Your task to perform on an android device: Search for alienware area 51 on amazon, select the first entry, and add it to the cart. Image 0: 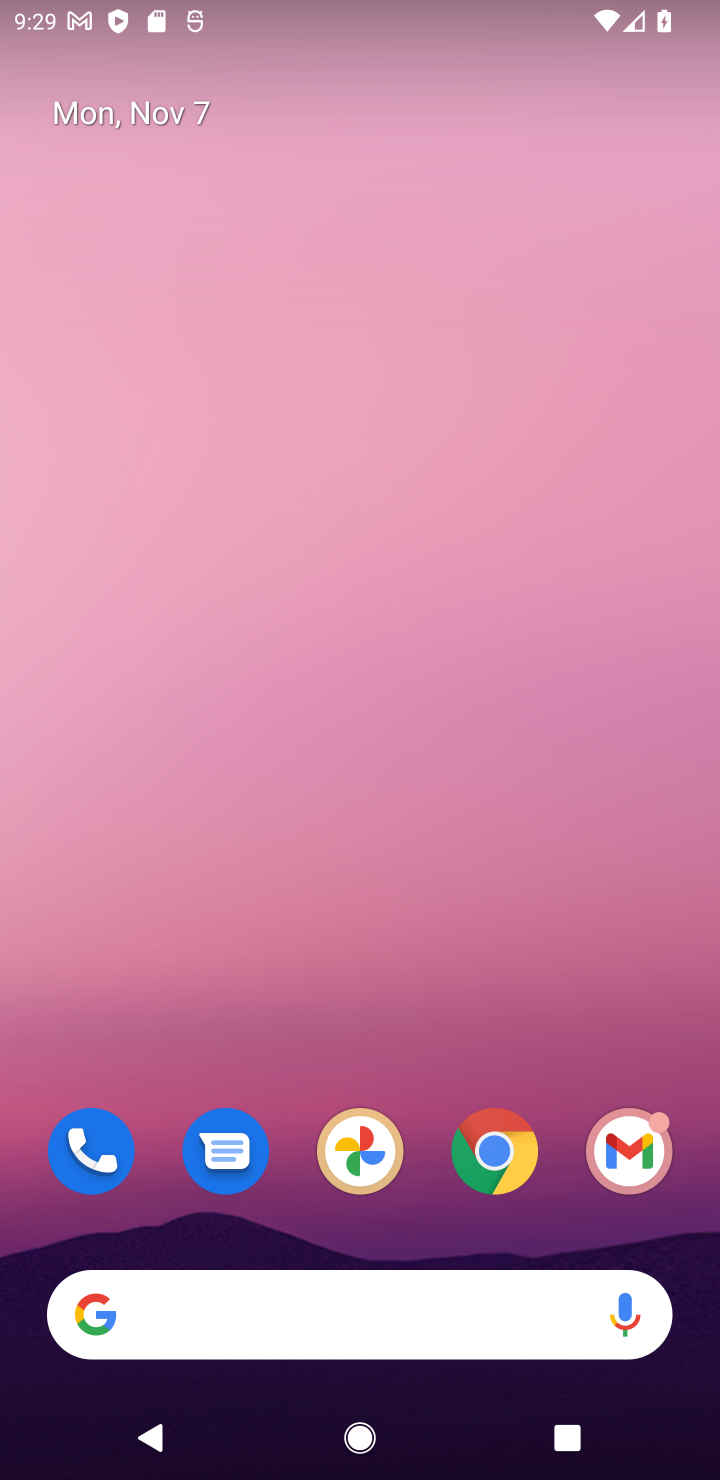
Step 0: click (506, 1168)
Your task to perform on an android device: Search for alienware area 51 on amazon, select the first entry, and add it to the cart. Image 1: 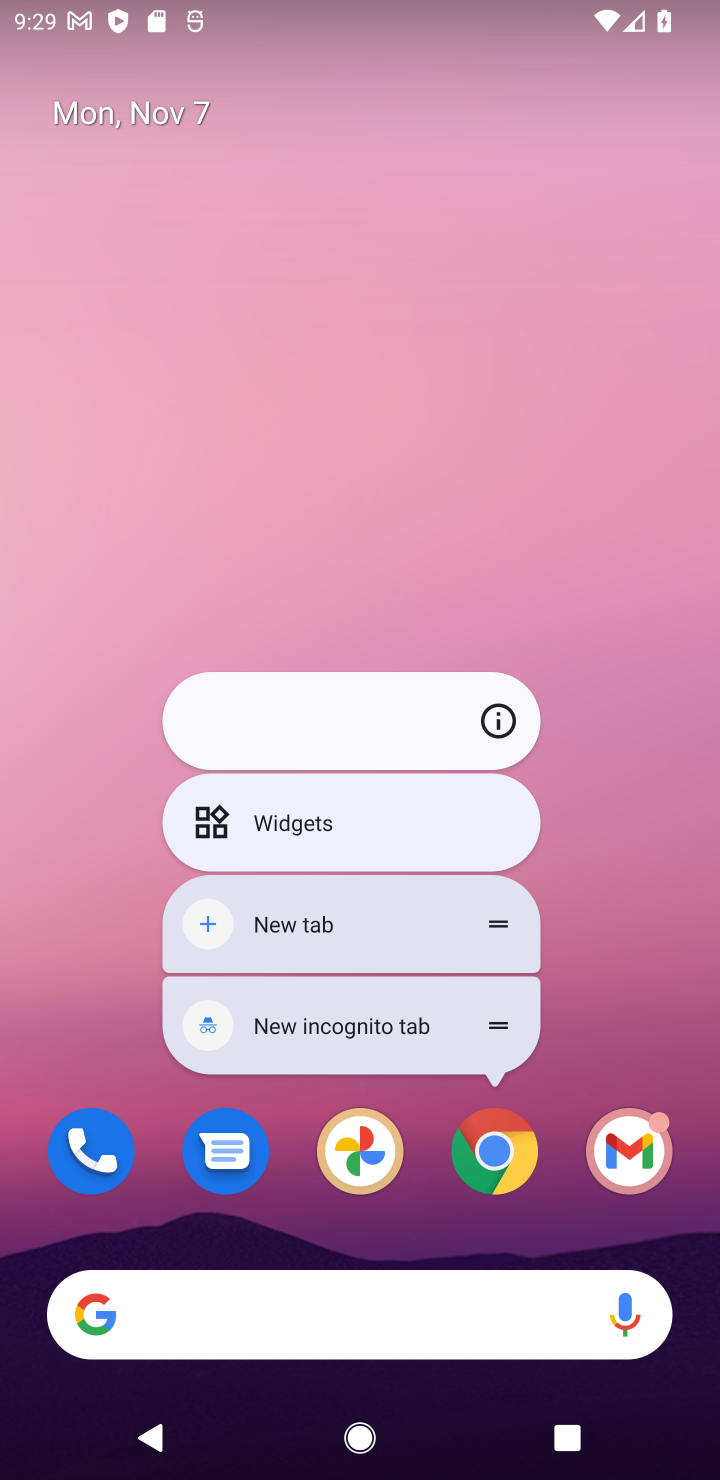
Step 1: click (502, 1140)
Your task to perform on an android device: Search for alienware area 51 on amazon, select the first entry, and add it to the cart. Image 2: 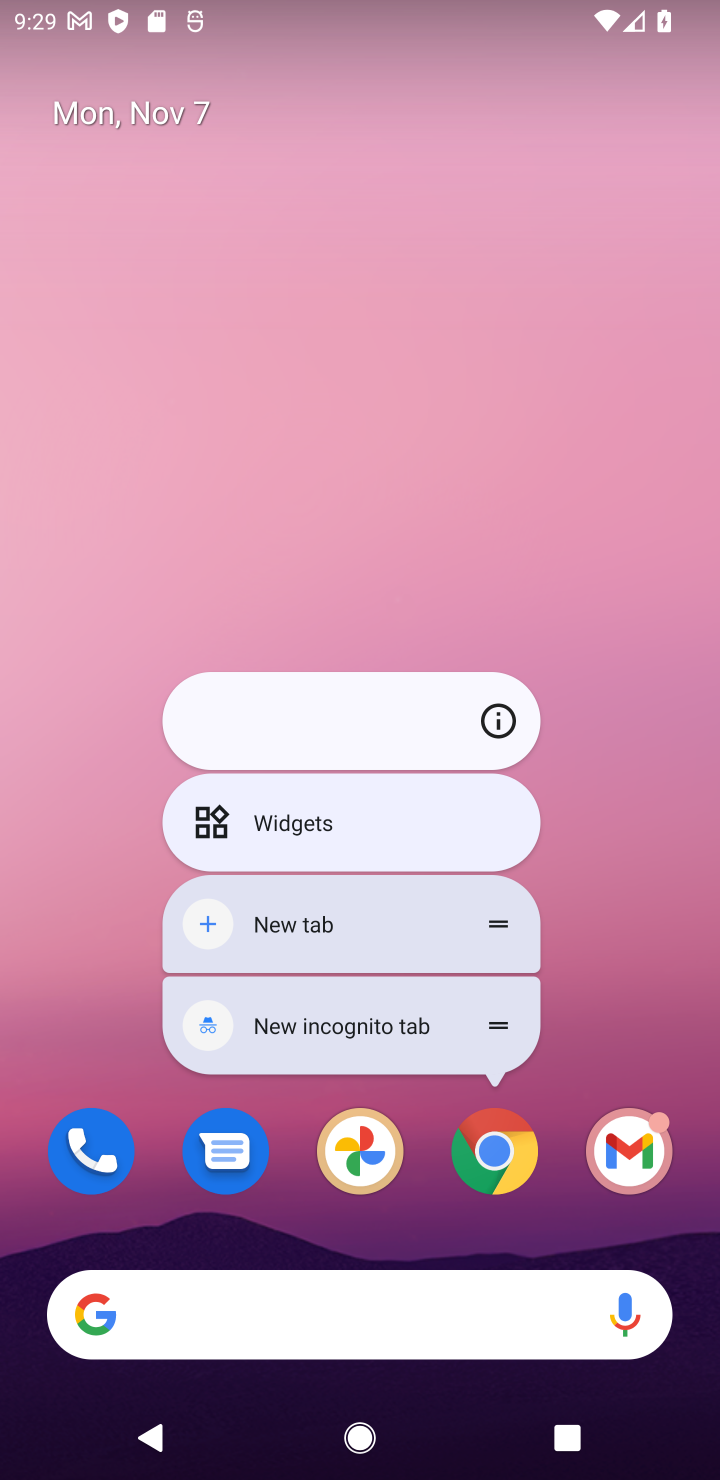
Step 2: click (489, 1155)
Your task to perform on an android device: Search for alienware area 51 on amazon, select the first entry, and add it to the cart. Image 3: 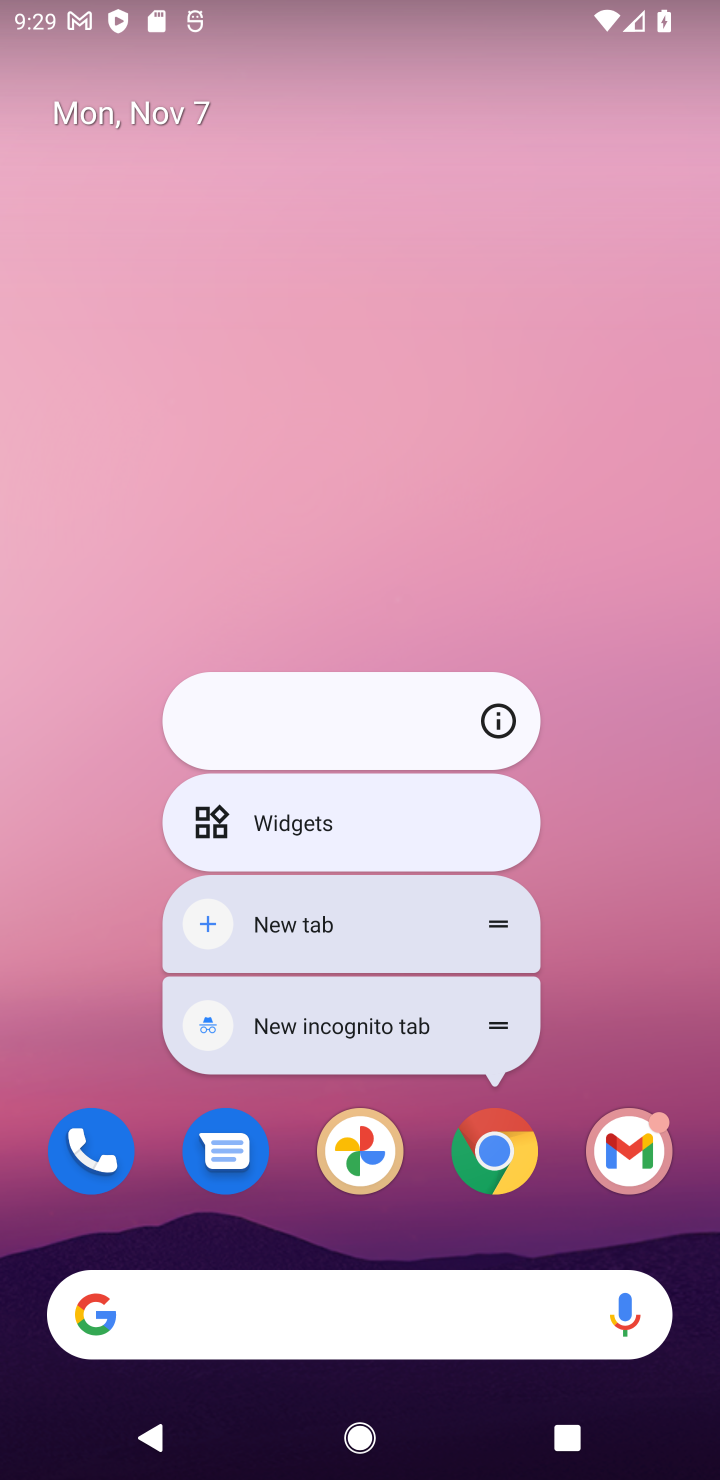
Step 3: click (489, 1155)
Your task to perform on an android device: Search for alienware area 51 on amazon, select the first entry, and add it to the cart. Image 4: 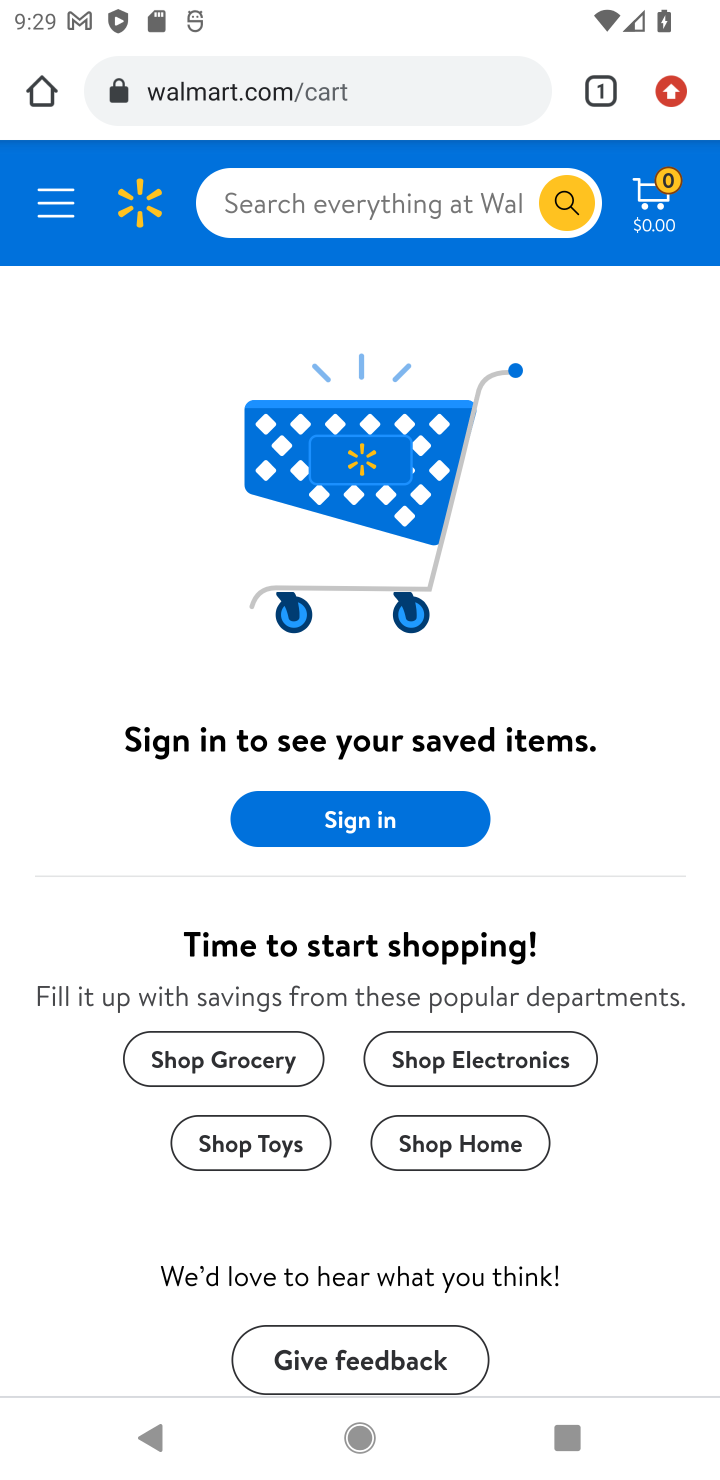
Step 4: click (407, 78)
Your task to perform on an android device: Search for alienware area 51 on amazon, select the first entry, and add it to the cart. Image 5: 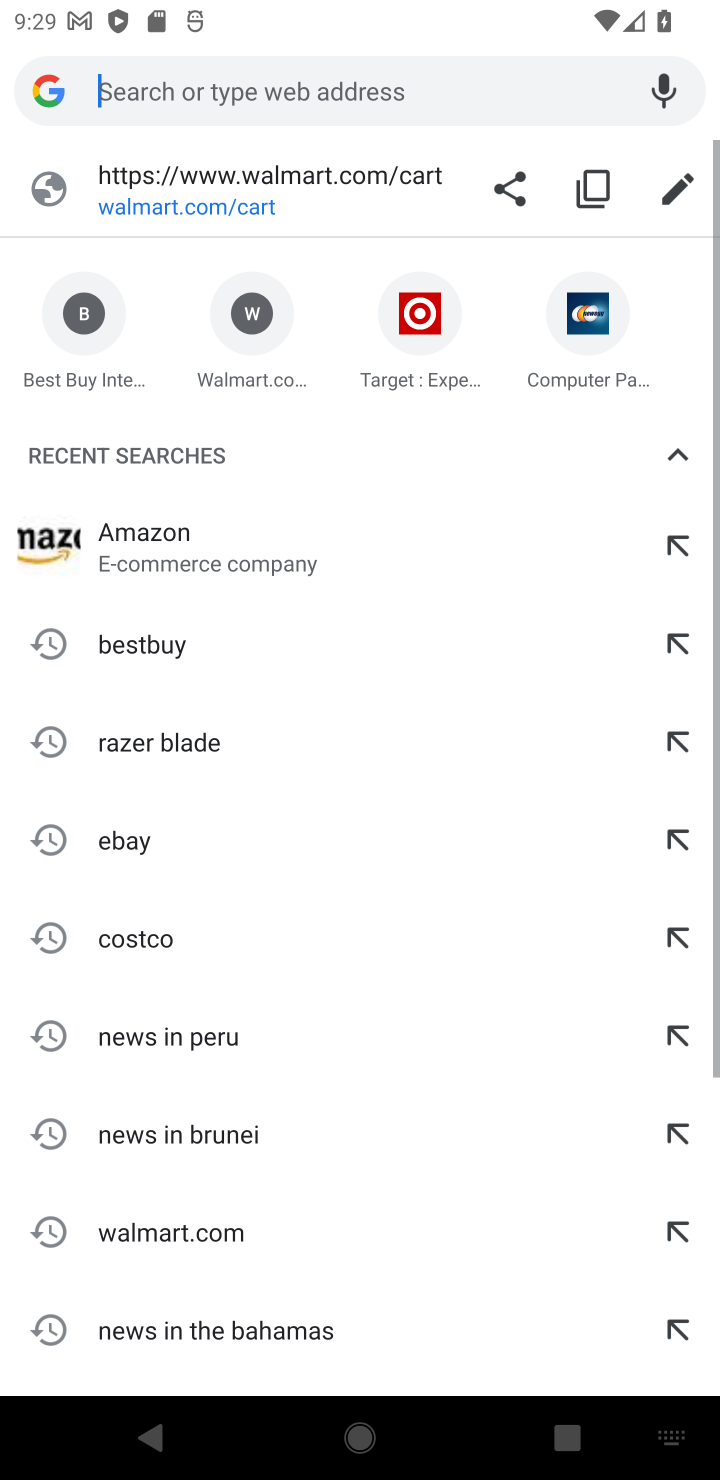
Step 5: click (94, 535)
Your task to perform on an android device: Search for alienware area 51 on amazon, select the first entry, and add it to the cart. Image 6: 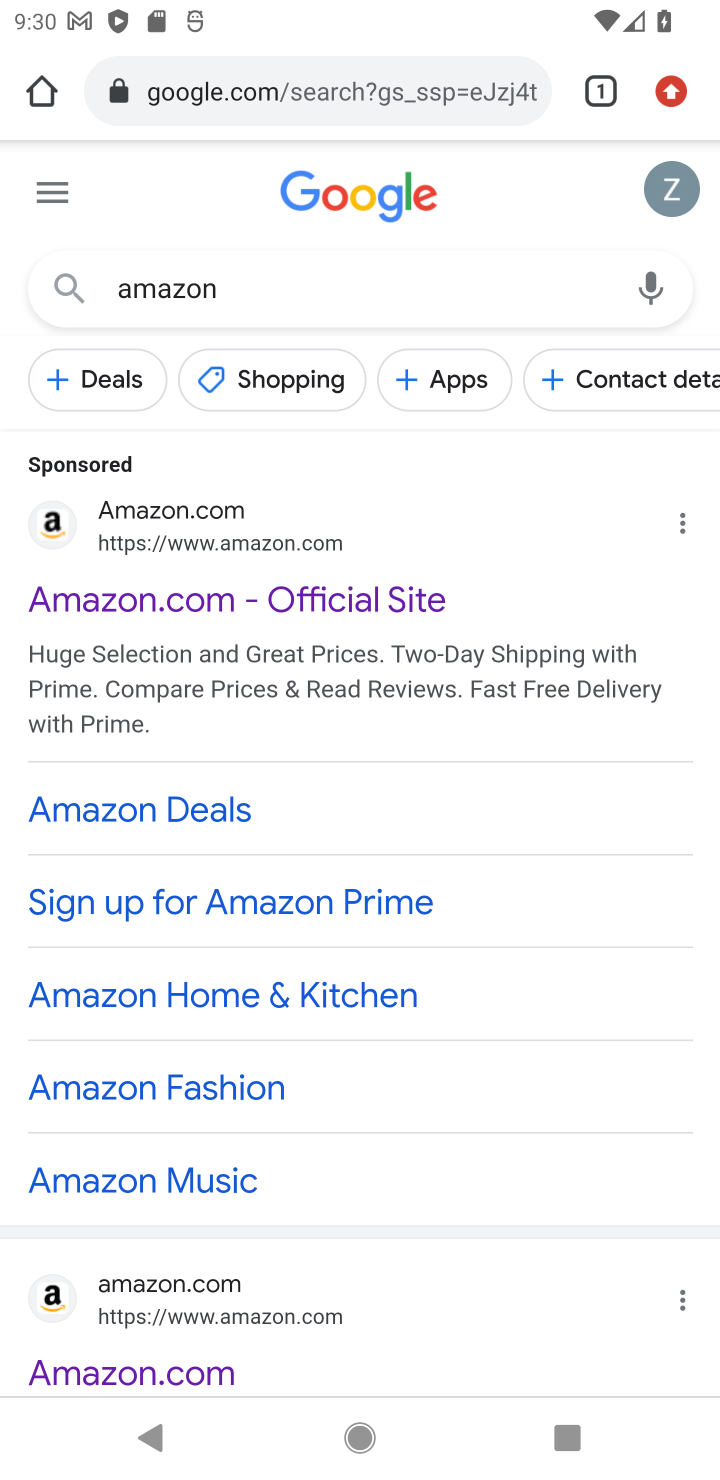
Step 6: click (185, 603)
Your task to perform on an android device: Search for alienware area 51 on amazon, select the first entry, and add it to the cart. Image 7: 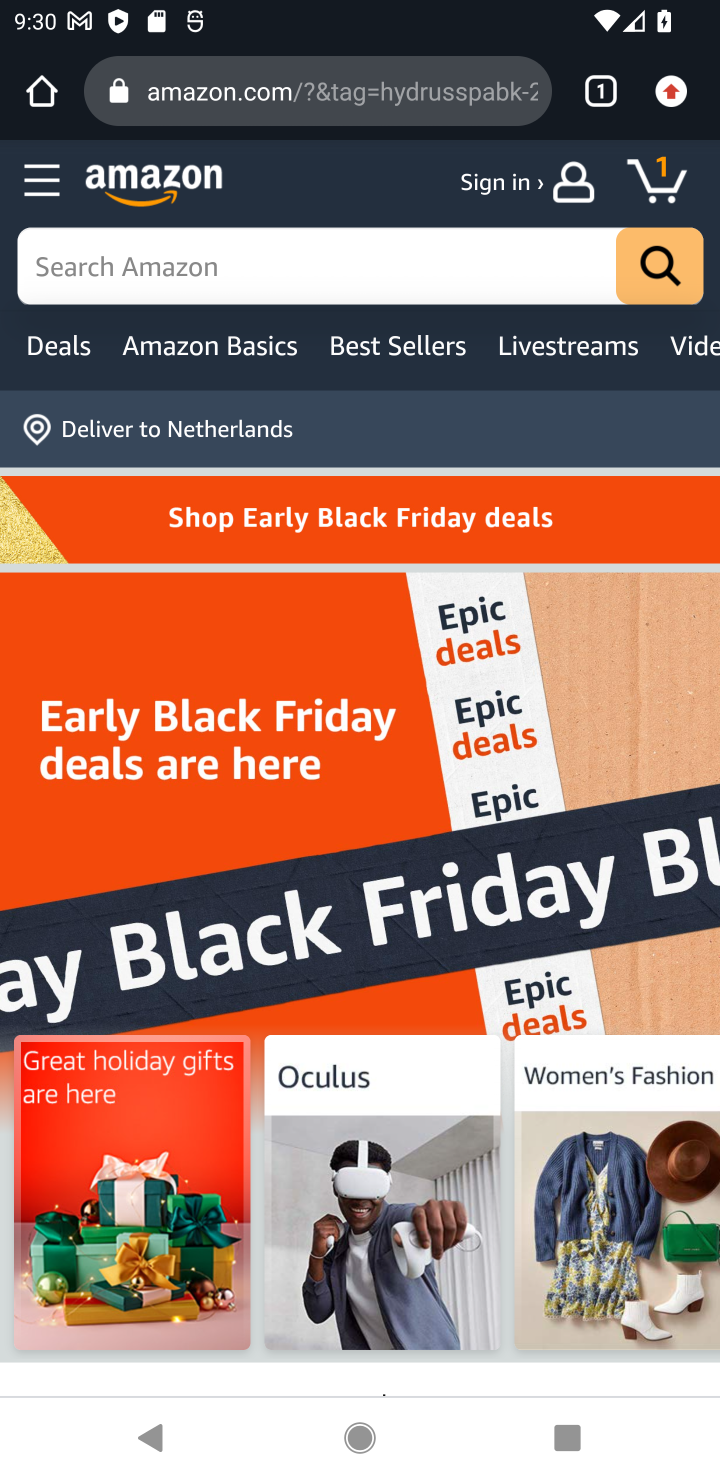
Step 7: click (113, 277)
Your task to perform on an android device: Search for alienware area 51 on amazon, select the first entry, and add it to the cart. Image 8: 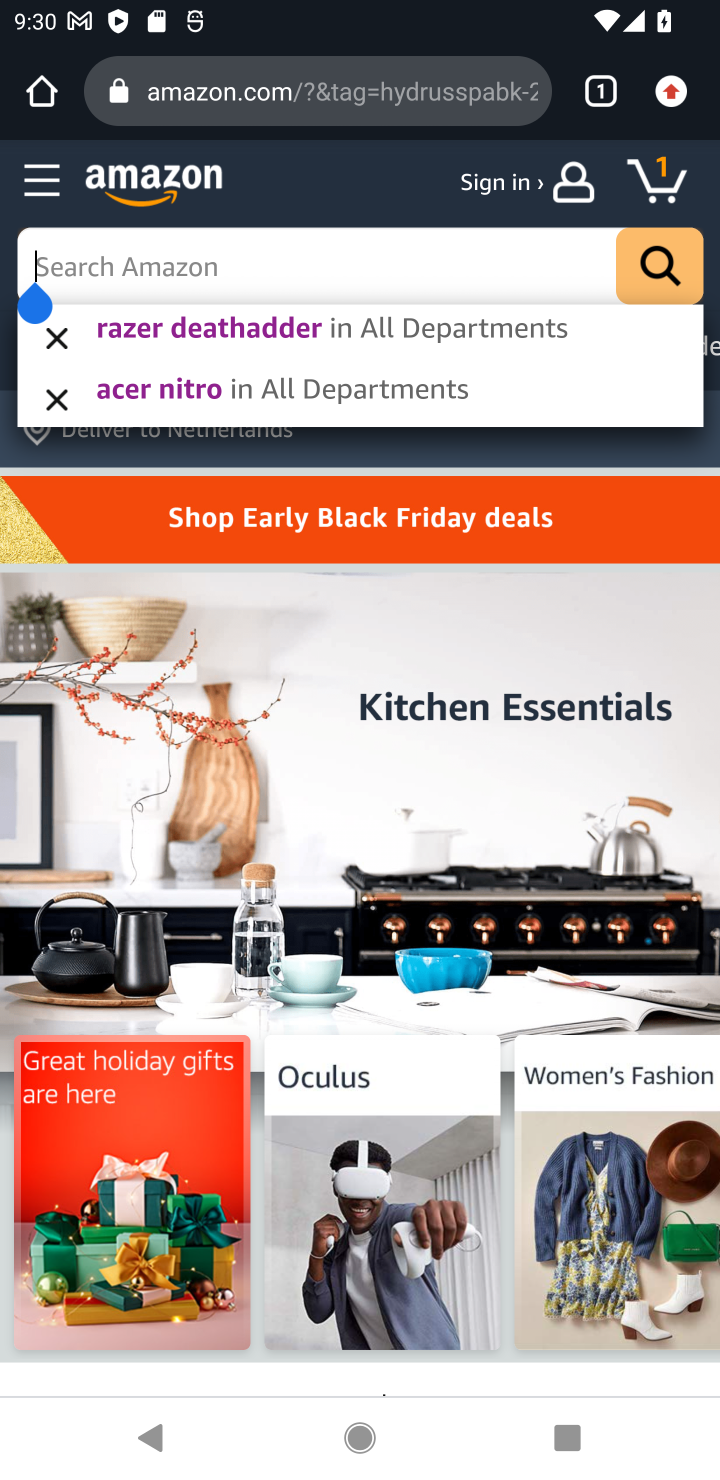
Step 8: press enter
Your task to perform on an android device: Search for alienware area 51 on amazon, select the first entry, and add it to the cart. Image 9: 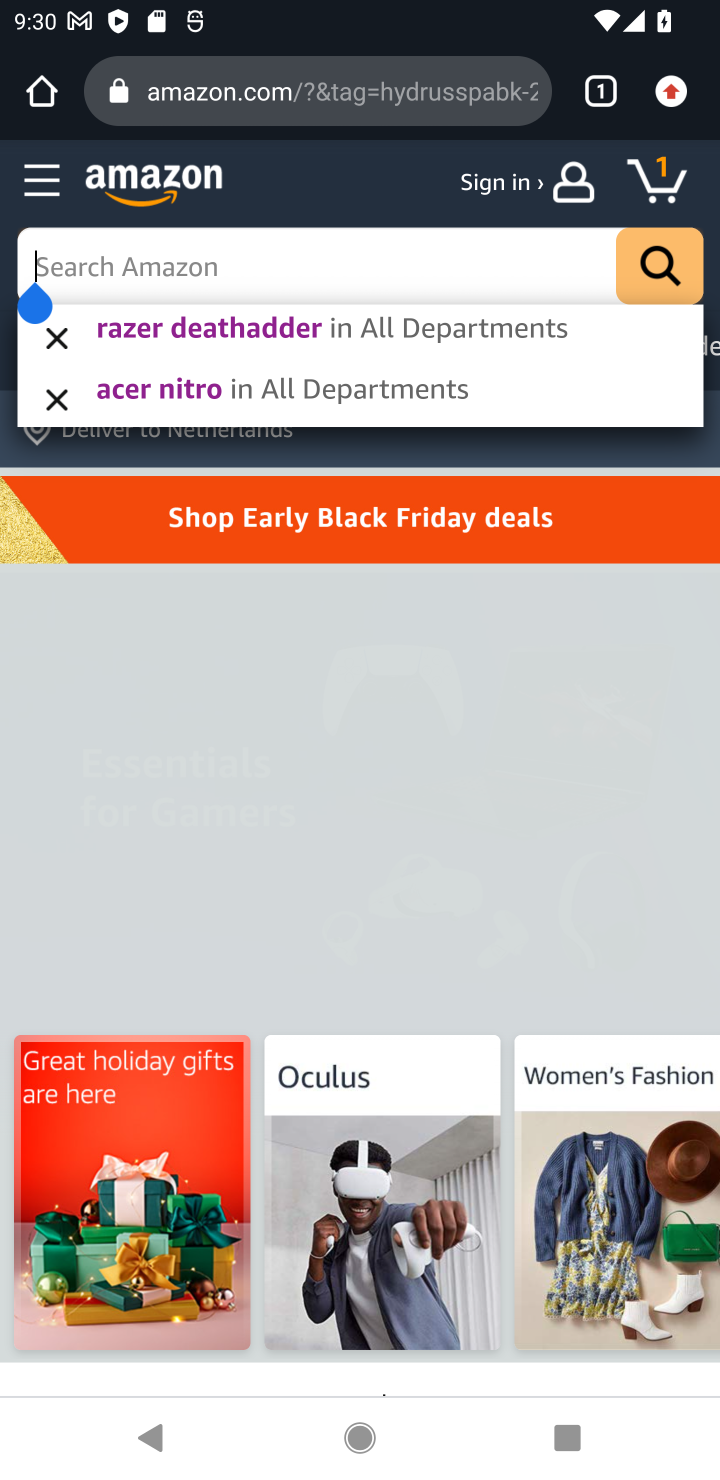
Step 9: type " alienware area 51 "
Your task to perform on an android device: Search for alienware area 51 on amazon, select the first entry, and add it to the cart. Image 10: 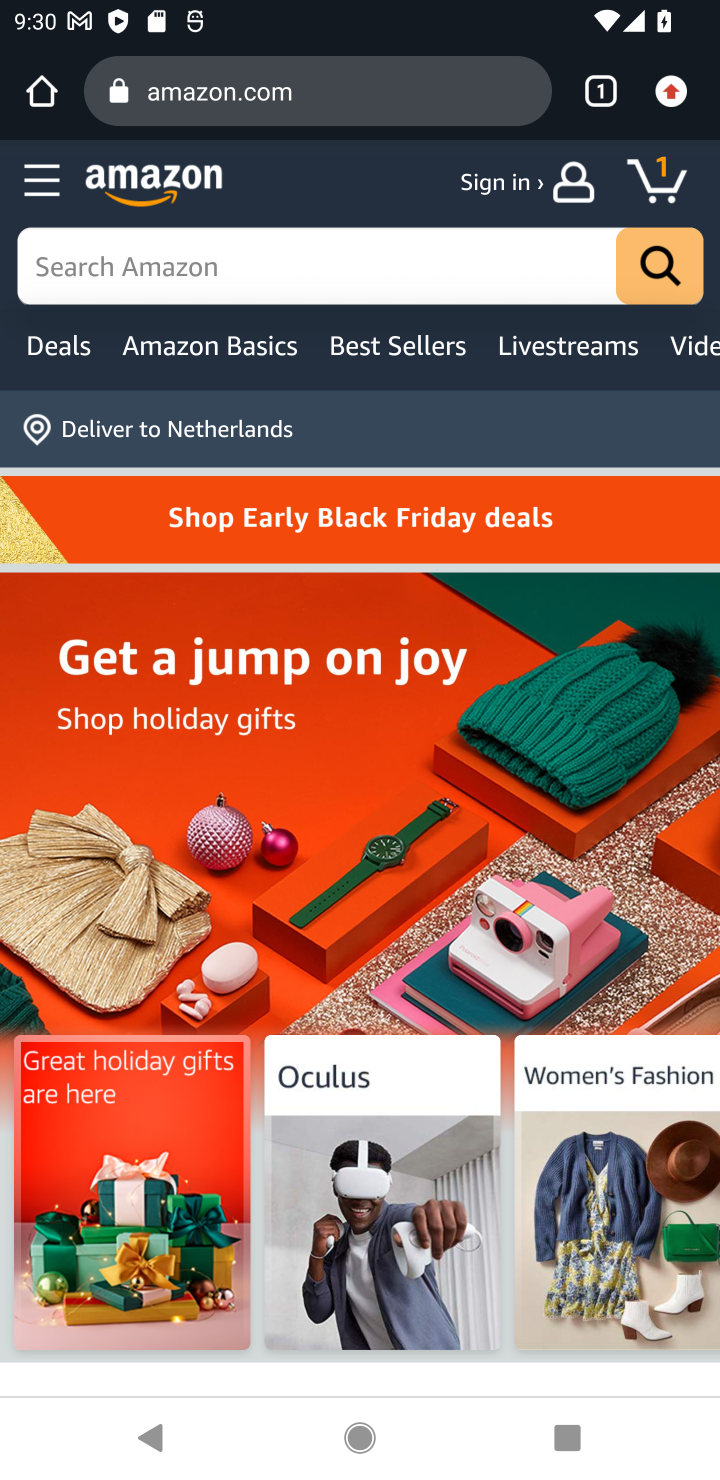
Step 10: click (154, 248)
Your task to perform on an android device: Search for alienware area 51 on amazon, select the first entry, and add it to the cart. Image 11: 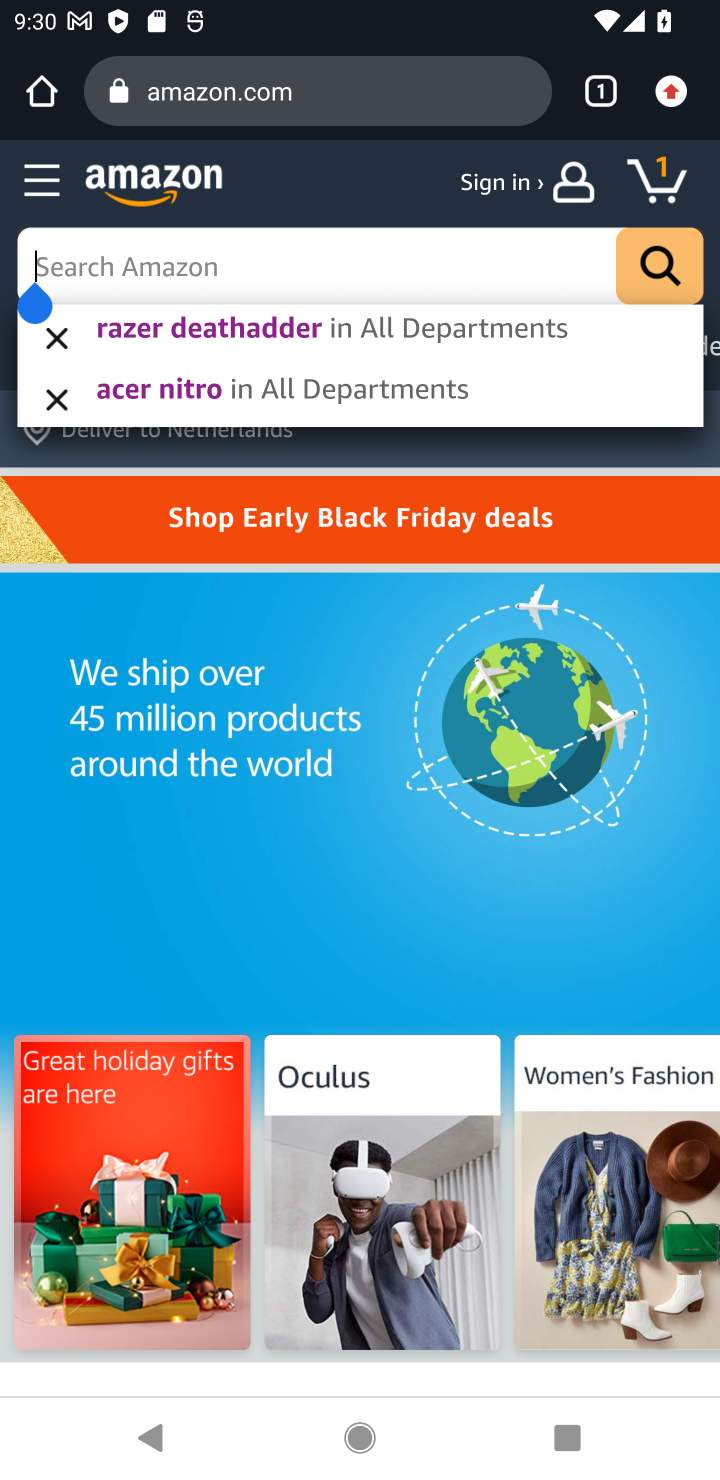
Step 11: press enter
Your task to perform on an android device: Search for alienware area 51 on amazon, select the first entry, and add it to the cart. Image 12: 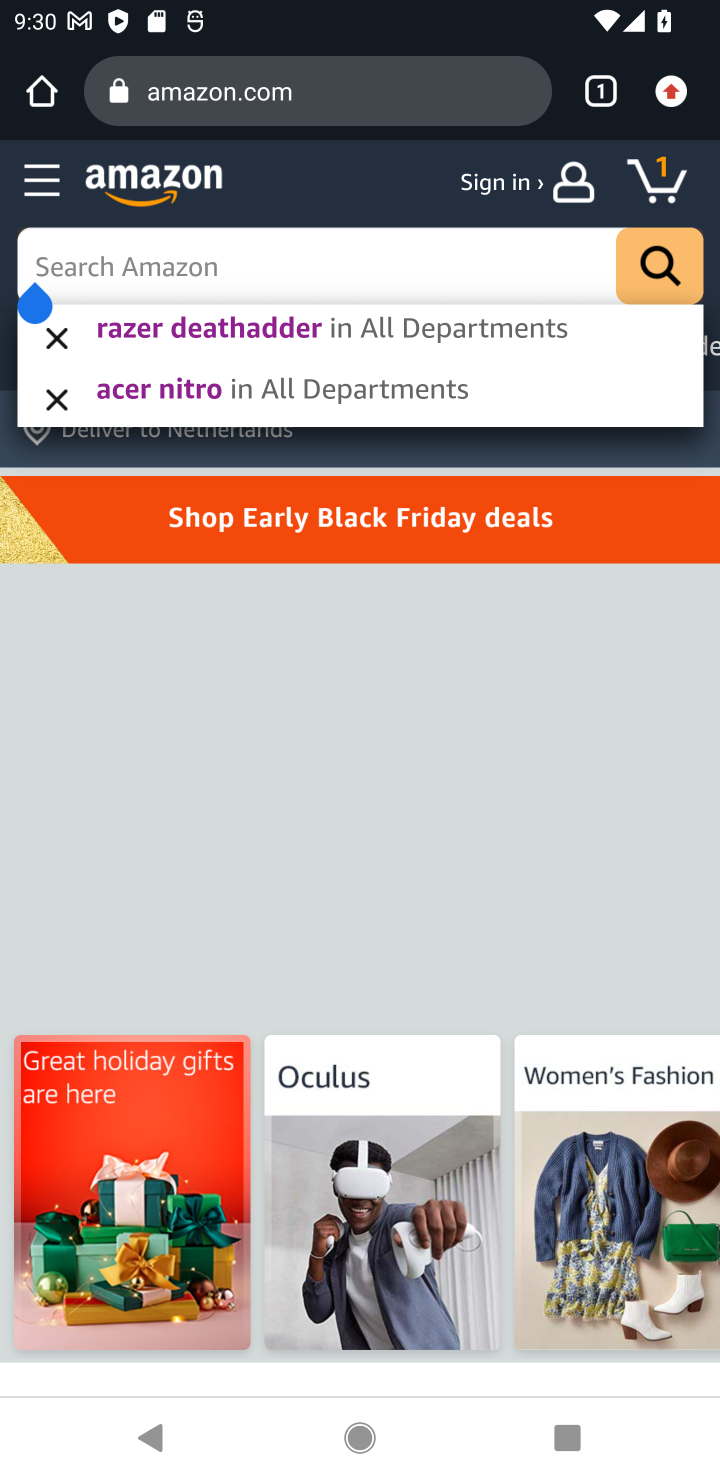
Step 12: type " alienware area 51 "
Your task to perform on an android device: Search for alienware area 51 on amazon, select the first entry, and add it to the cart. Image 13: 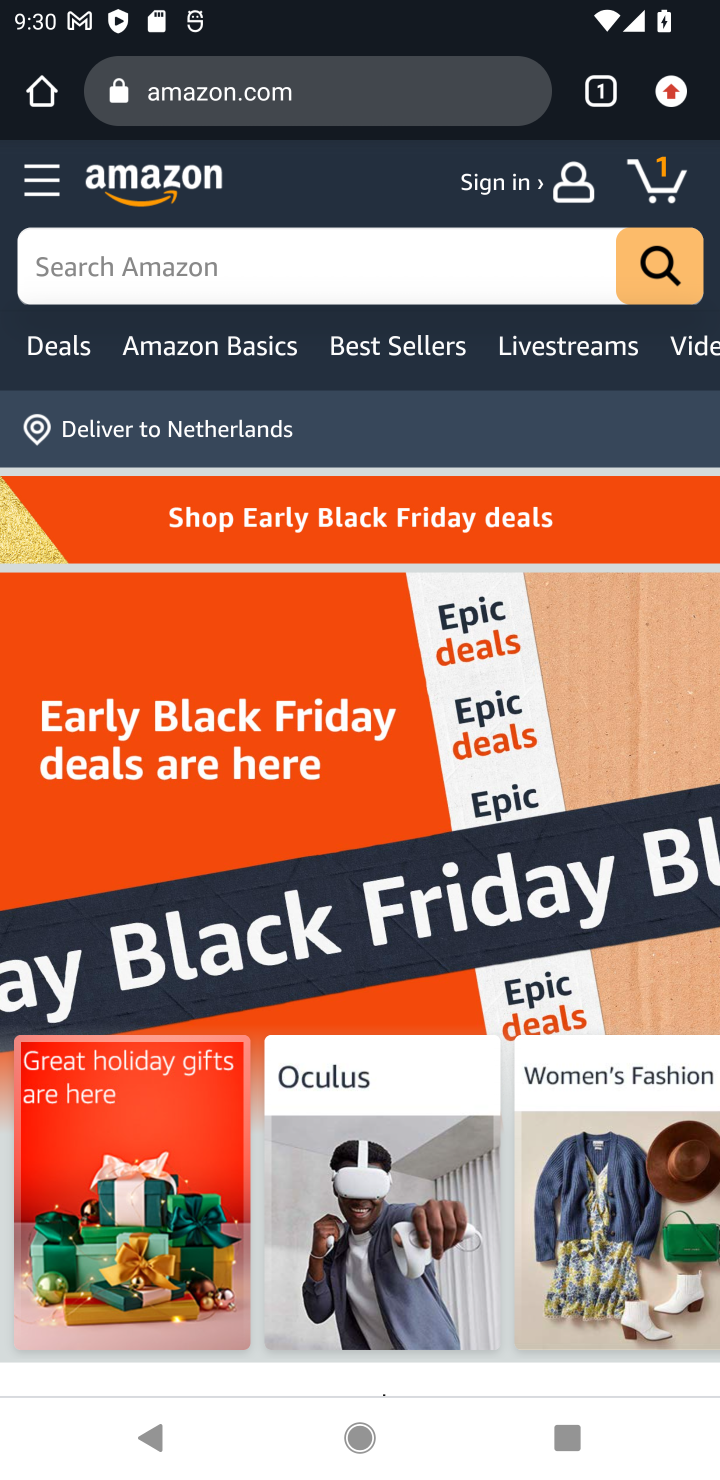
Step 13: click (257, 260)
Your task to perform on an android device: Search for alienware area 51 on amazon, select the first entry, and add it to the cart. Image 14: 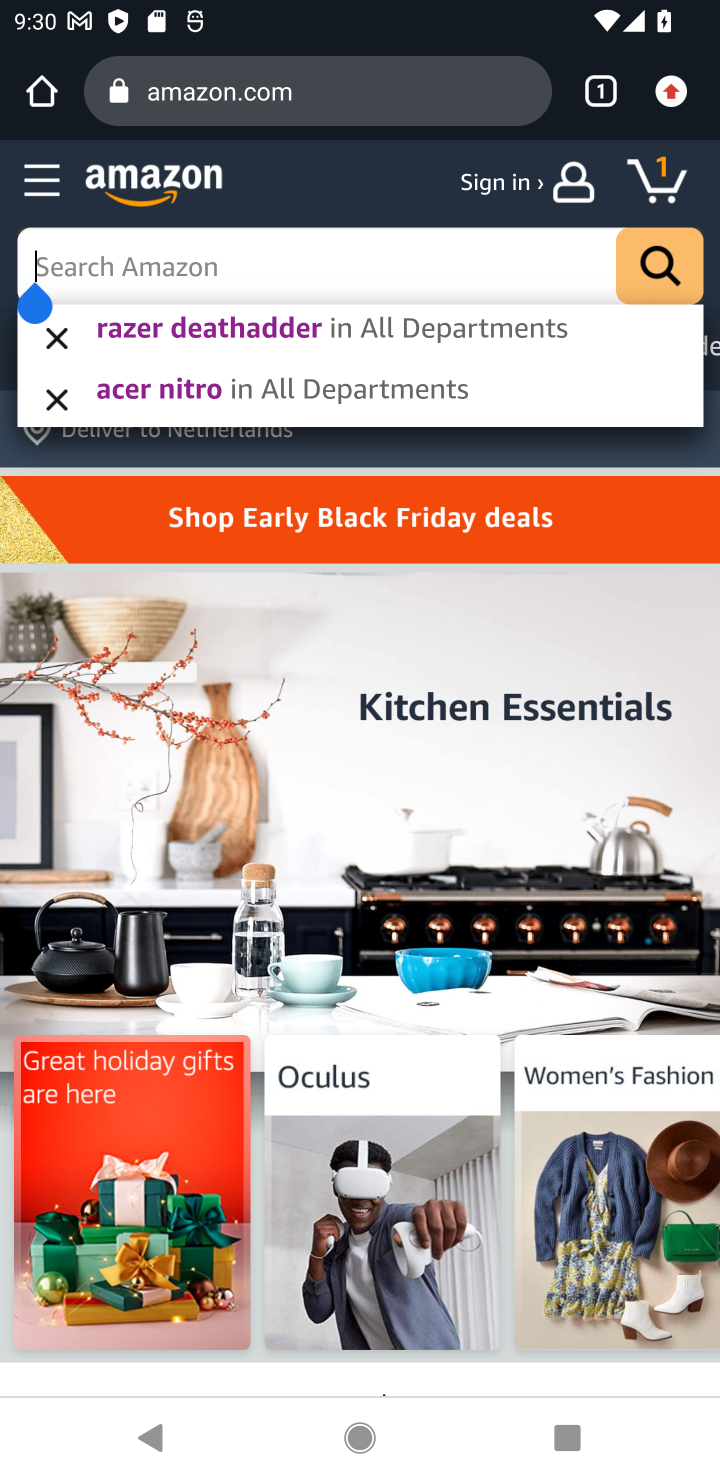
Step 14: type " alienware area 51 "
Your task to perform on an android device: Search for alienware area 51 on amazon, select the first entry, and add it to the cart. Image 15: 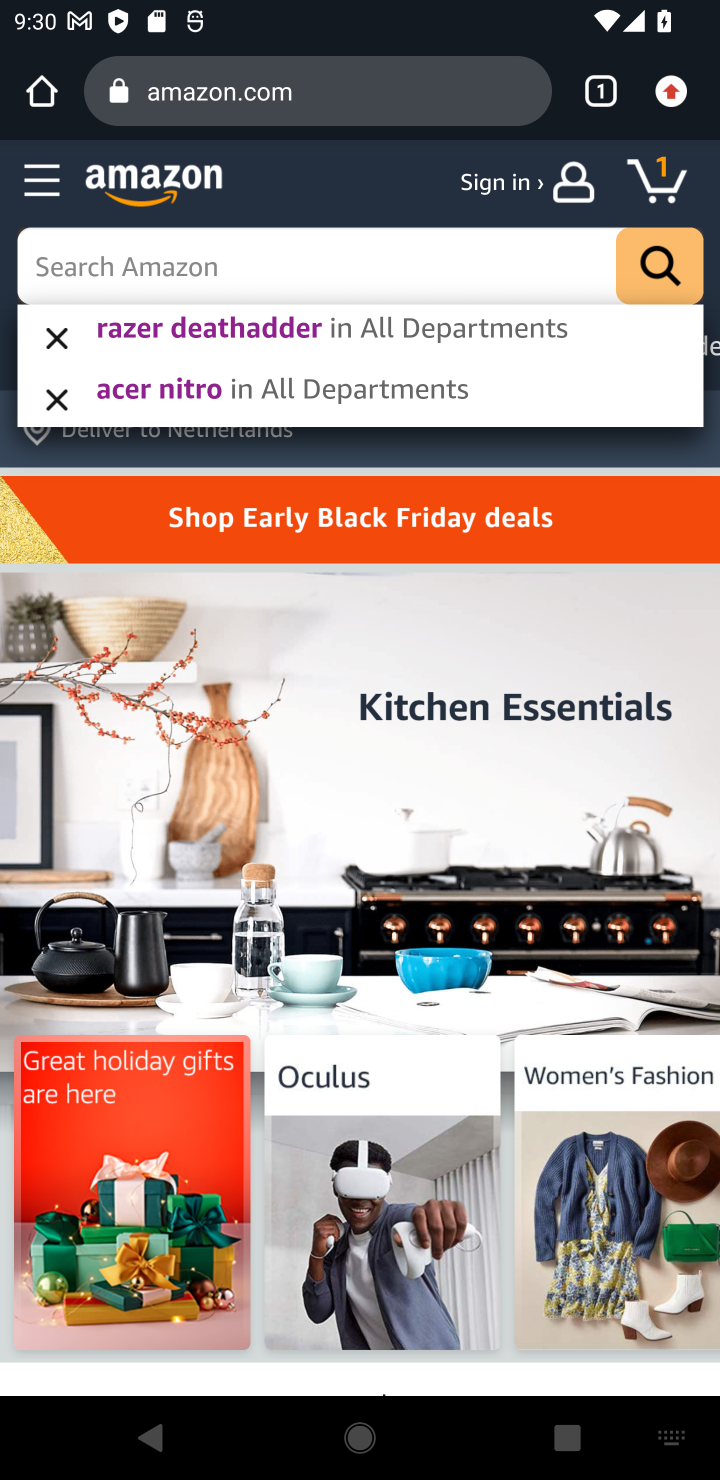
Step 15: press enter
Your task to perform on an android device: Search for alienware area 51 on amazon, select the first entry, and add it to the cart. Image 16: 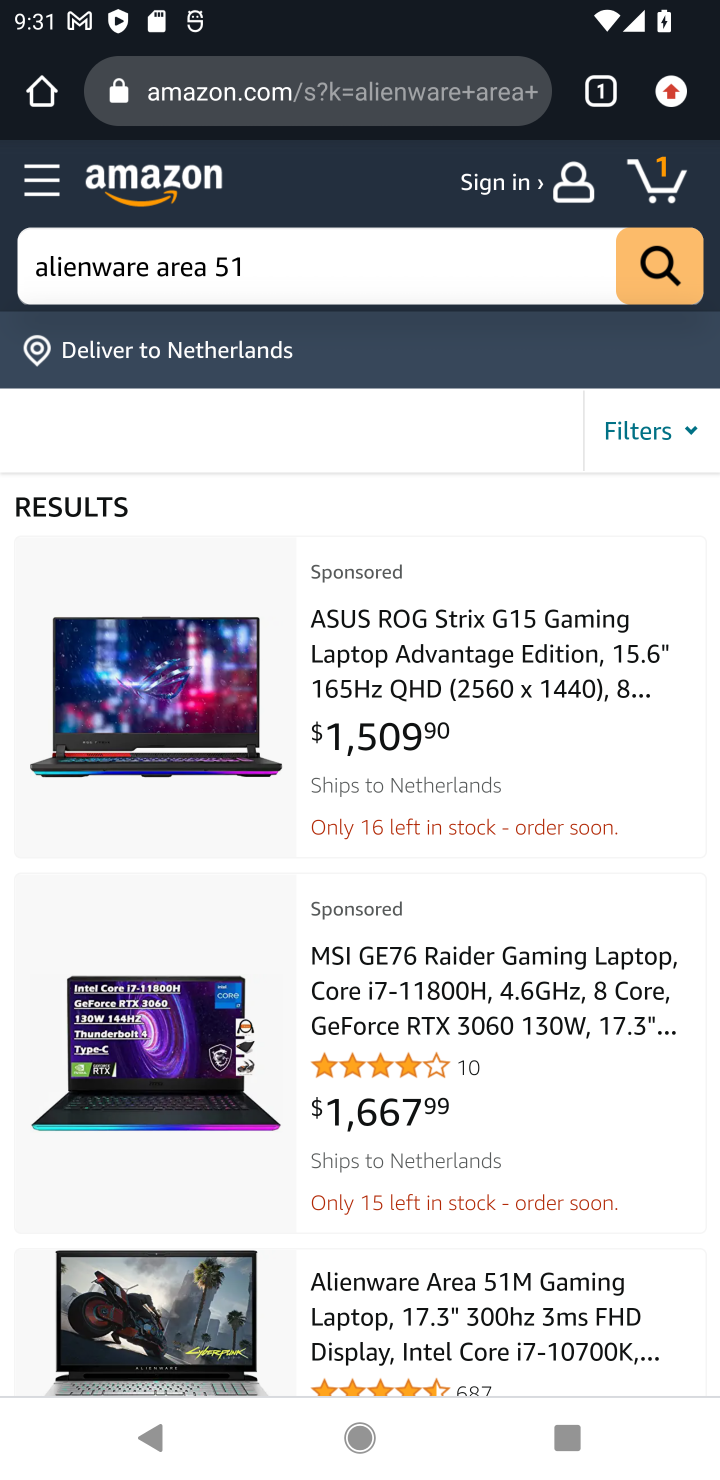
Step 16: task complete